Your task to perform on an android device: Go to Android settings Image 0: 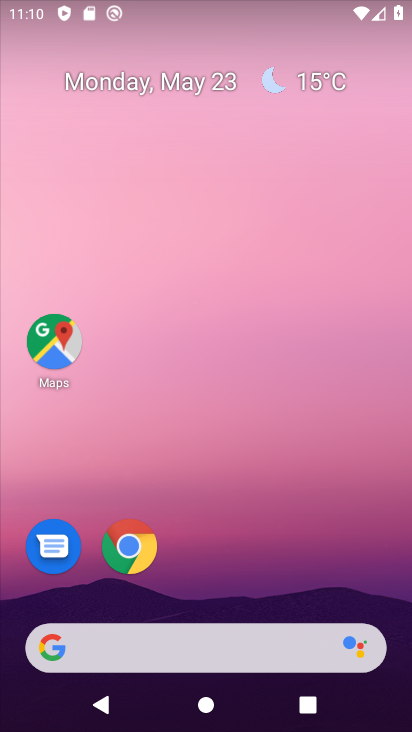
Step 0: drag from (197, 540) to (238, 127)
Your task to perform on an android device: Go to Android settings Image 1: 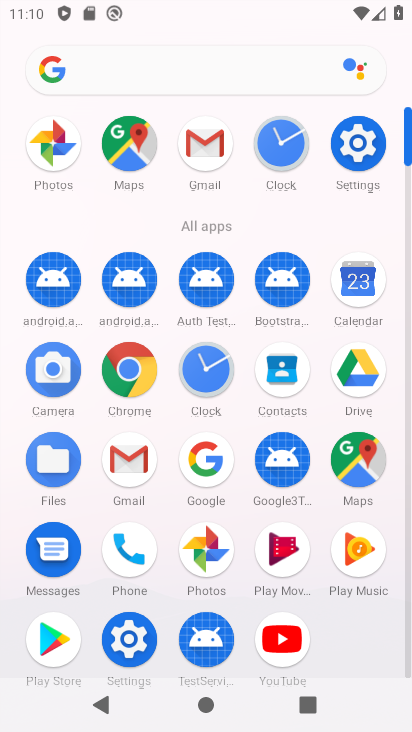
Step 1: click (140, 632)
Your task to perform on an android device: Go to Android settings Image 2: 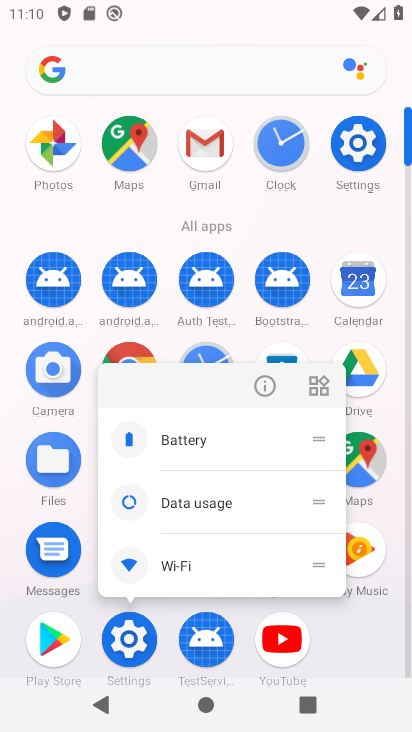
Step 2: click (267, 382)
Your task to perform on an android device: Go to Android settings Image 3: 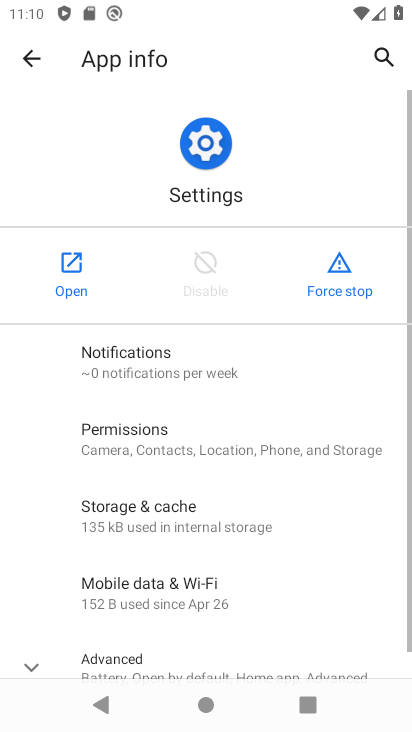
Step 3: click (65, 252)
Your task to perform on an android device: Go to Android settings Image 4: 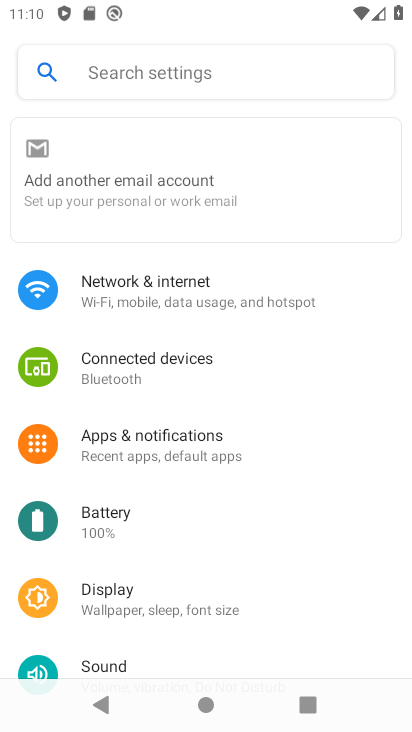
Step 4: drag from (165, 556) to (183, 259)
Your task to perform on an android device: Go to Android settings Image 5: 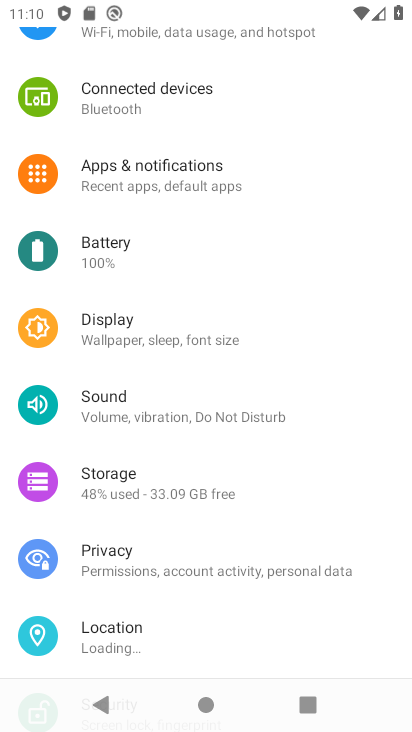
Step 5: drag from (238, 537) to (282, 251)
Your task to perform on an android device: Go to Android settings Image 6: 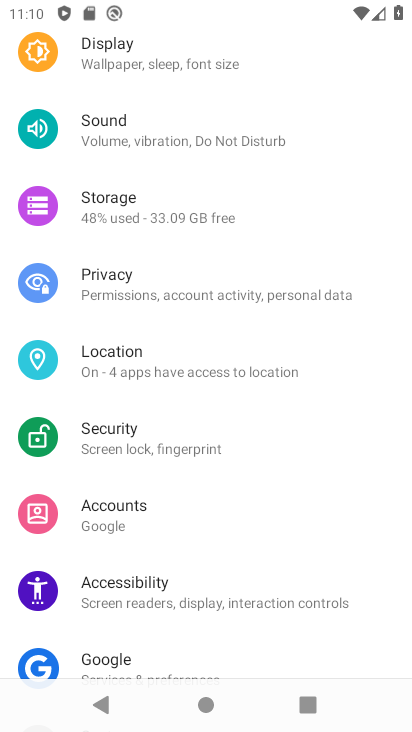
Step 6: drag from (191, 598) to (234, 122)
Your task to perform on an android device: Go to Android settings Image 7: 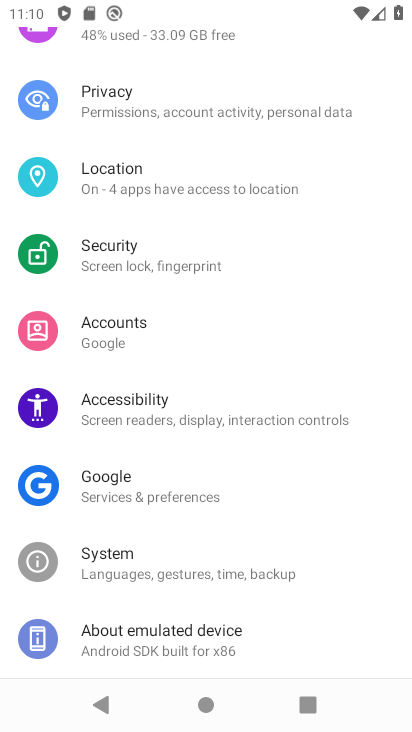
Step 7: click (161, 630)
Your task to perform on an android device: Go to Android settings Image 8: 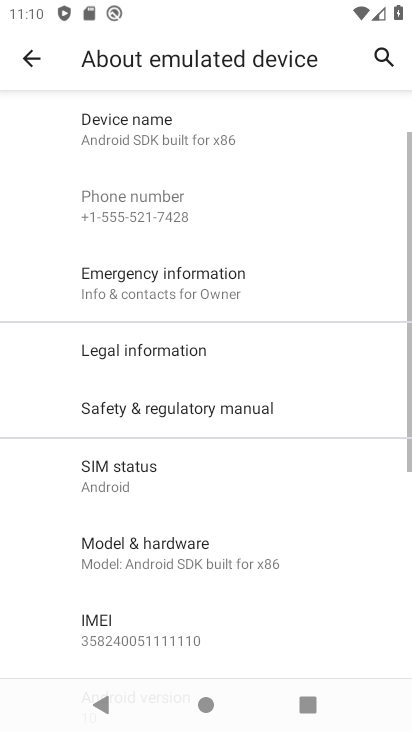
Step 8: drag from (210, 556) to (259, 189)
Your task to perform on an android device: Go to Android settings Image 9: 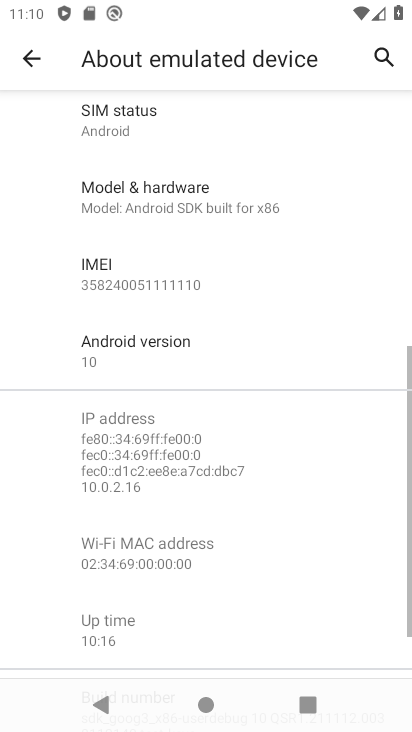
Step 9: click (188, 351)
Your task to perform on an android device: Go to Android settings Image 10: 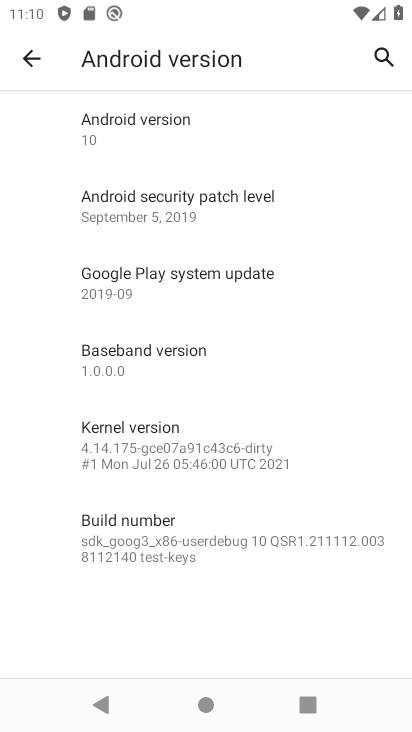
Step 10: task complete